Your task to perform on an android device: change the clock display to show seconds Image 0: 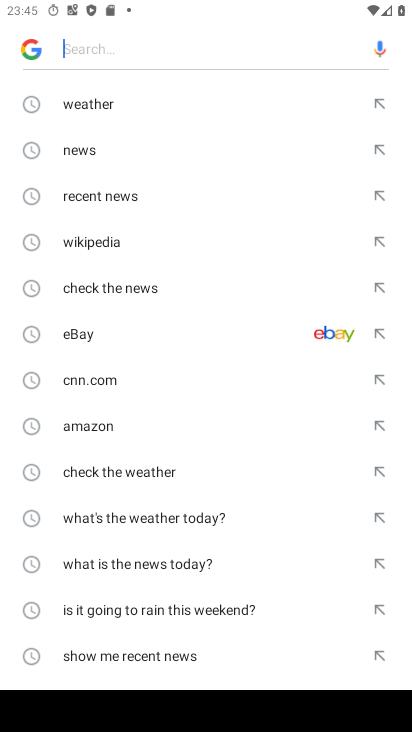
Step 0: press home button
Your task to perform on an android device: change the clock display to show seconds Image 1: 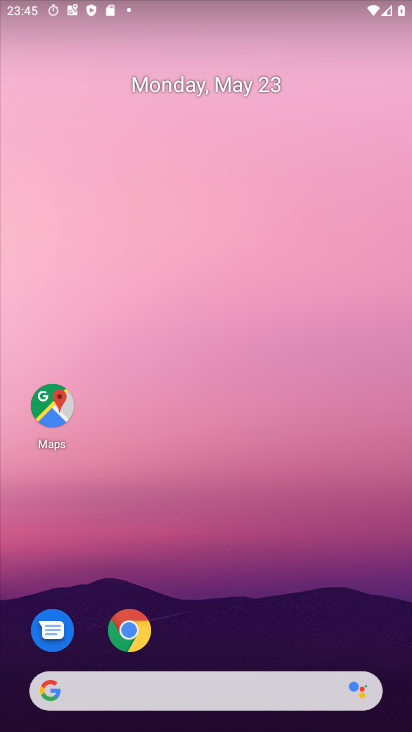
Step 1: drag from (240, 655) to (244, 79)
Your task to perform on an android device: change the clock display to show seconds Image 2: 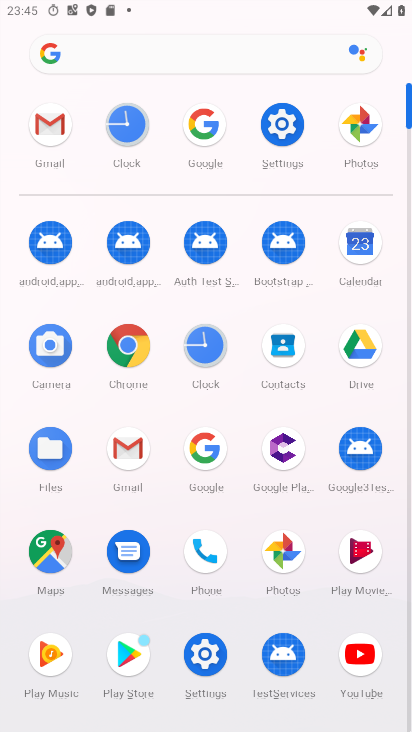
Step 2: click (122, 117)
Your task to perform on an android device: change the clock display to show seconds Image 3: 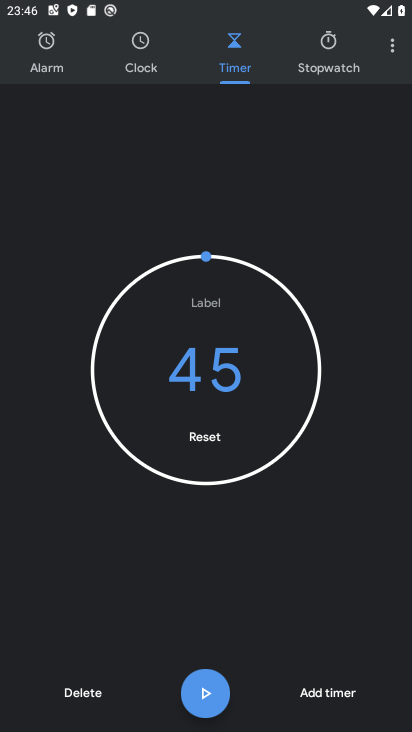
Step 3: click (391, 42)
Your task to perform on an android device: change the clock display to show seconds Image 4: 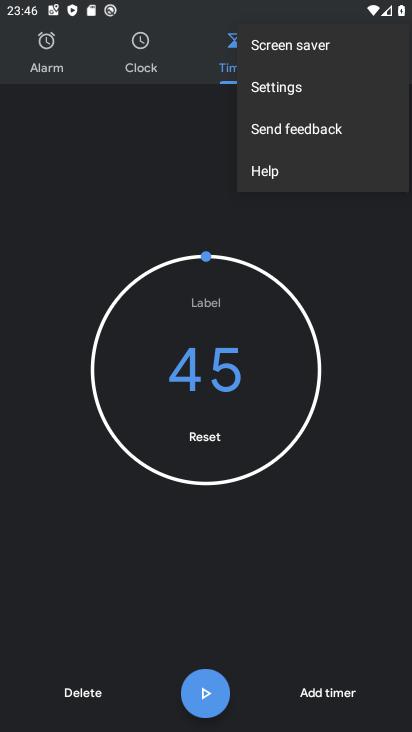
Step 4: click (288, 95)
Your task to perform on an android device: change the clock display to show seconds Image 5: 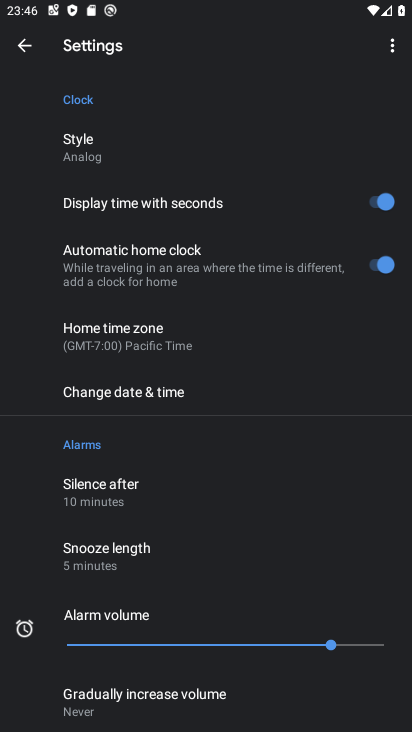
Step 5: task complete